Your task to perform on an android device: turn off javascript in the chrome app Image 0: 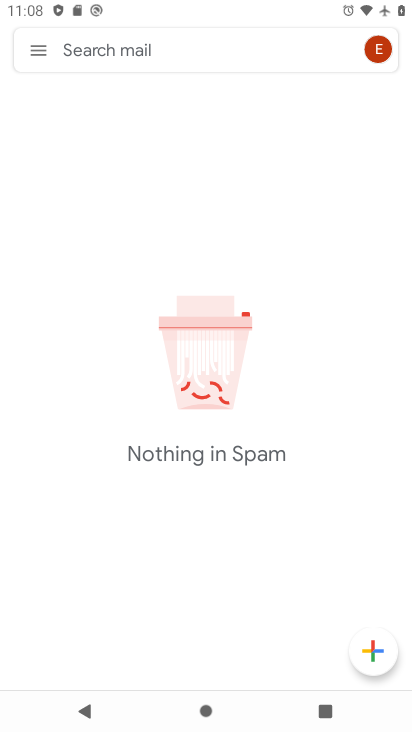
Step 0: press home button
Your task to perform on an android device: turn off javascript in the chrome app Image 1: 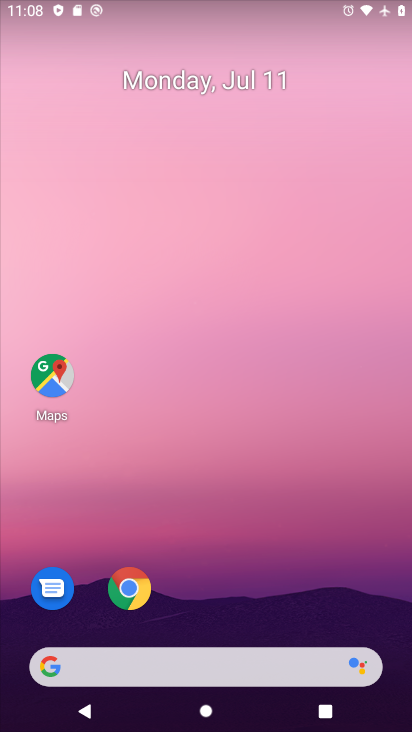
Step 1: click (123, 591)
Your task to perform on an android device: turn off javascript in the chrome app Image 2: 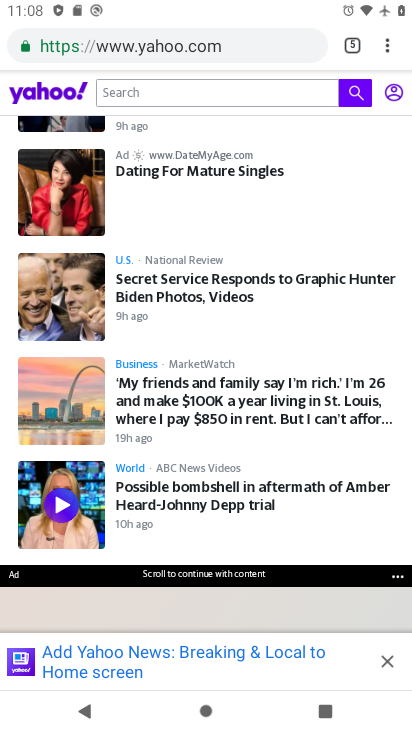
Step 2: drag from (390, 41) to (287, 554)
Your task to perform on an android device: turn off javascript in the chrome app Image 3: 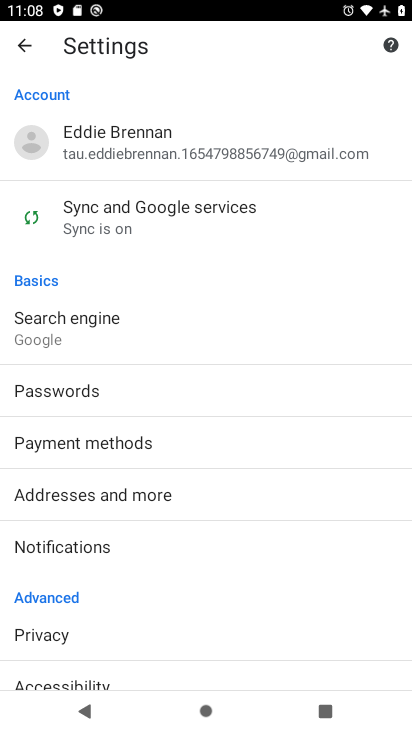
Step 3: drag from (152, 631) to (236, 191)
Your task to perform on an android device: turn off javascript in the chrome app Image 4: 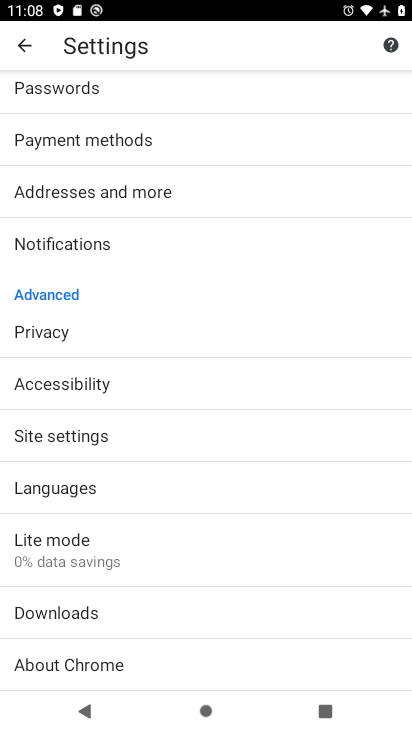
Step 4: click (97, 438)
Your task to perform on an android device: turn off javascript in the chrome app Image 5: 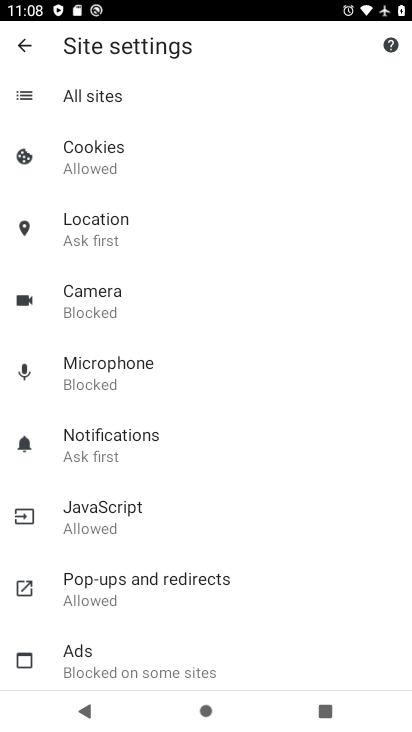
Step 5: click (107, 515)
Your task to perform on an android device: turn off javascript in the chrome app Image 6: 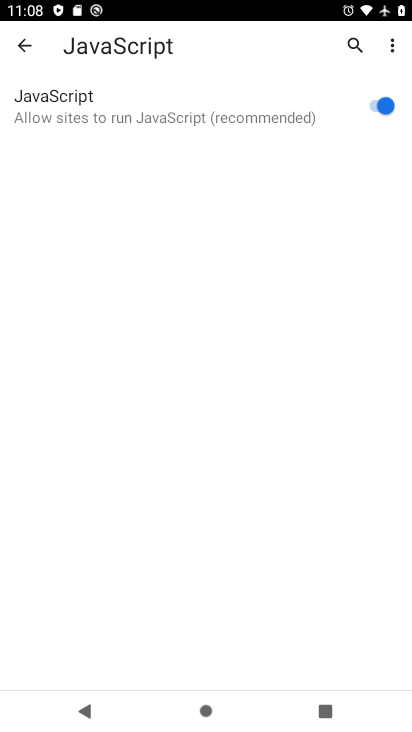
Step 6: click (373, 105)
Your task to perform on an android device: turn off javascript in the chrome app Image 7: 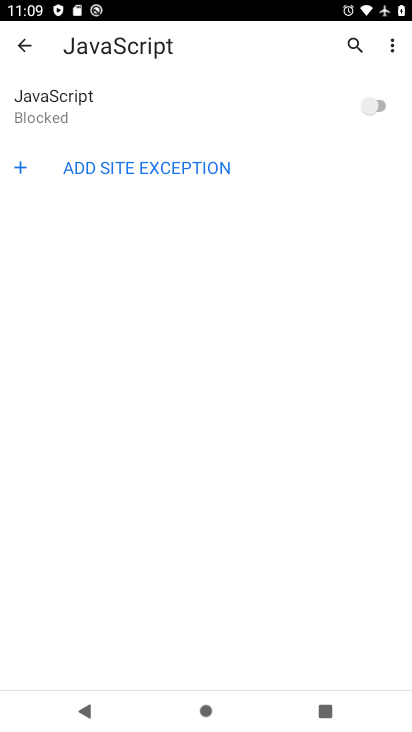
Step 7: task complete